Your task to perform on an android device: check storage Image 0: 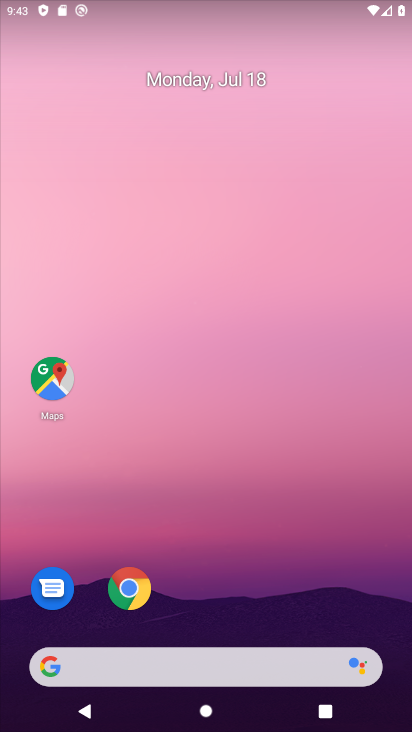
Step 0: press home button
Your task to perform on an android device: check storage Image 1: 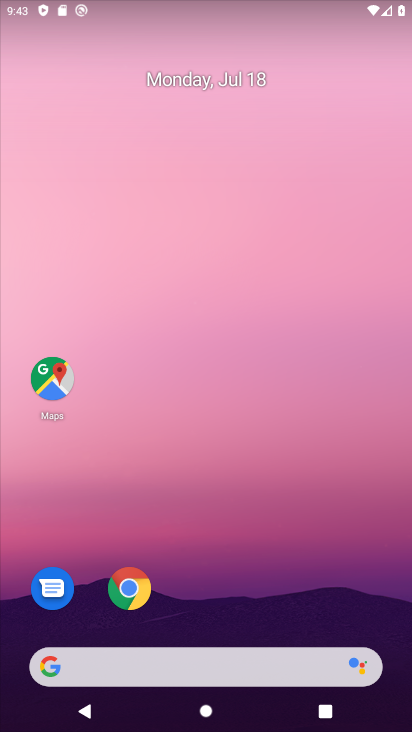
Step 1: drag from (277, 480) to (328, 155)
Your task to perform on an android device: check storage Image 2: 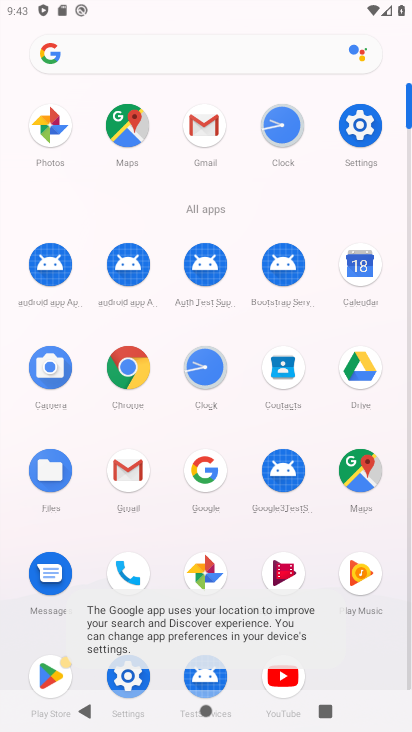
Step 2: click (365, 135)
Your task to perform on an android device: check storage Image 3: 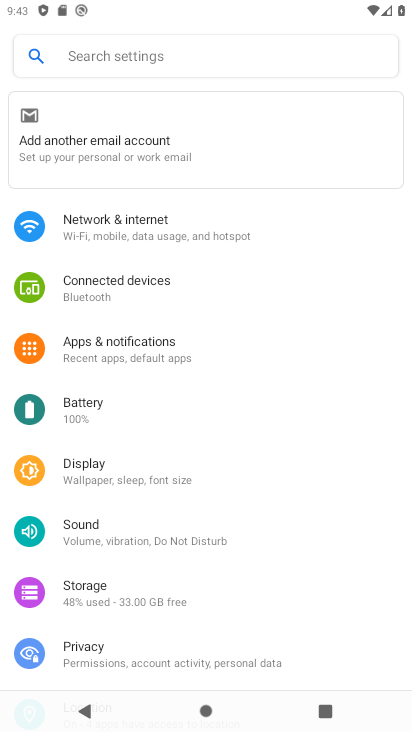
Step 3: click (93, 597)
Your task to perform on an android device: check storage Image 4: 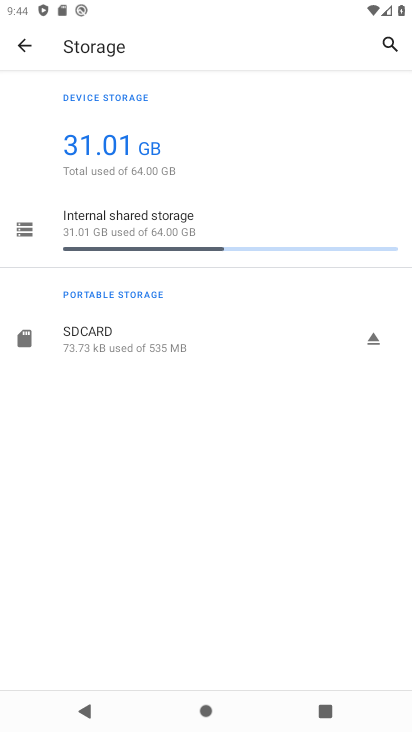
Step 4: task complete